Your task to perform on an android device: turn on bluetooth scan Image 0: 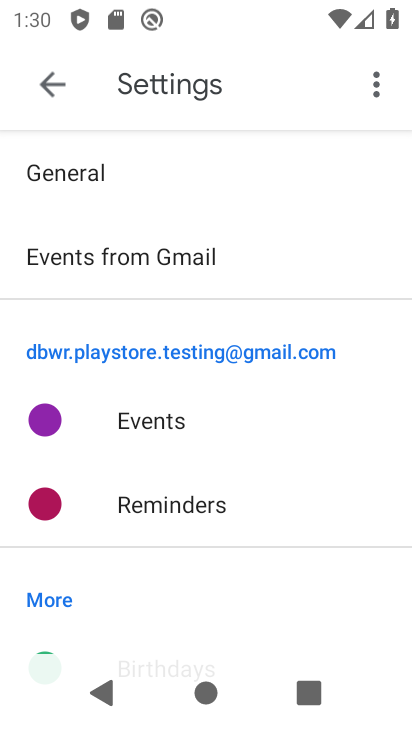
Step 0: press home button
Your task to perform on an android device: turn on bluetooth scan Image 1: 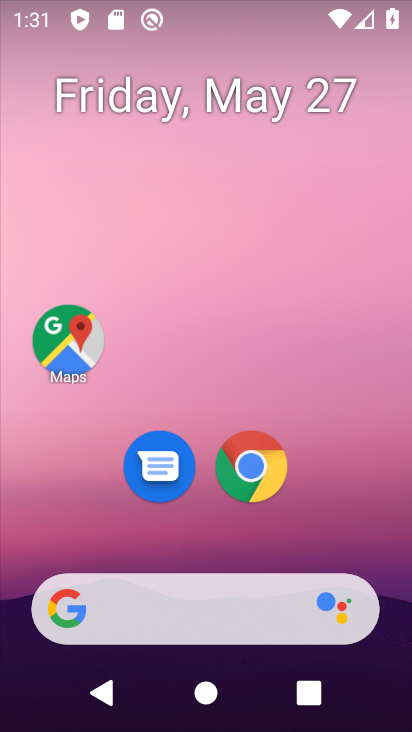
Step 1: drag from (393, 470) to (274, 1)
Your task to perform on an android device: turn on bluetooth scan Image 2: 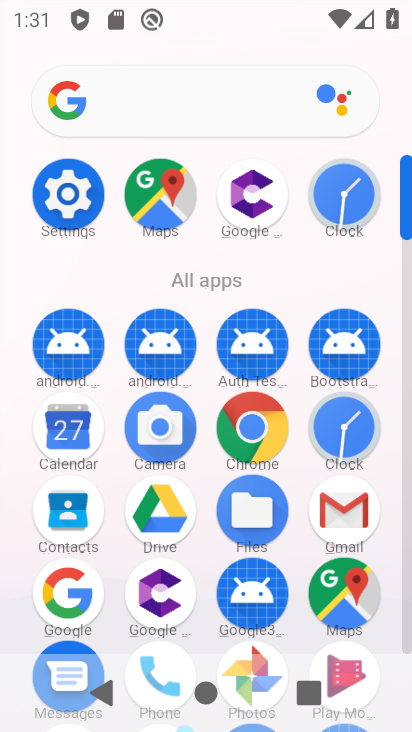
Step 2: click (64, 172)
Your task to perform on an android device: turn on bluetooth scan Image 3: 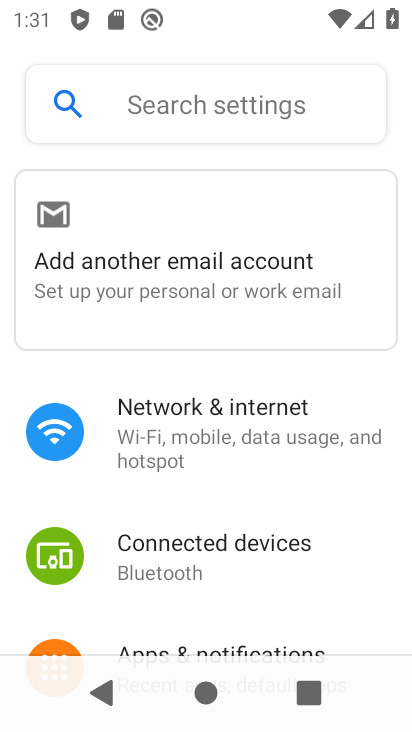
Step 3: drag from (215, 580) to (121, 100)
Your task to perform on an android device: turn on bluetooth scan Image 4: 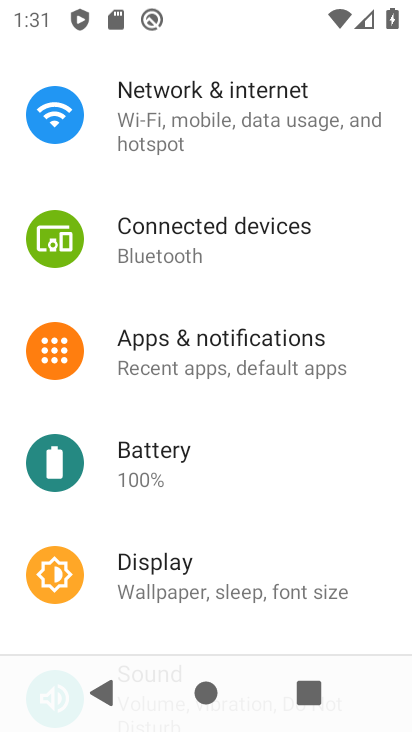
Step 4: drag from (150, 565) to (86, 98)
Your task to perform on an android device: turn on bluetooth scan Image 5: 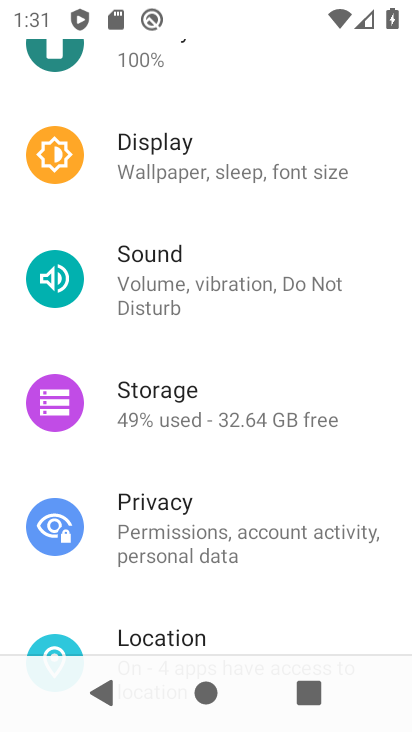
Step 5: drag from (166, 544) to (107, 174)
Your task to perform on an android device: turn on bluetooth scan Image 6: 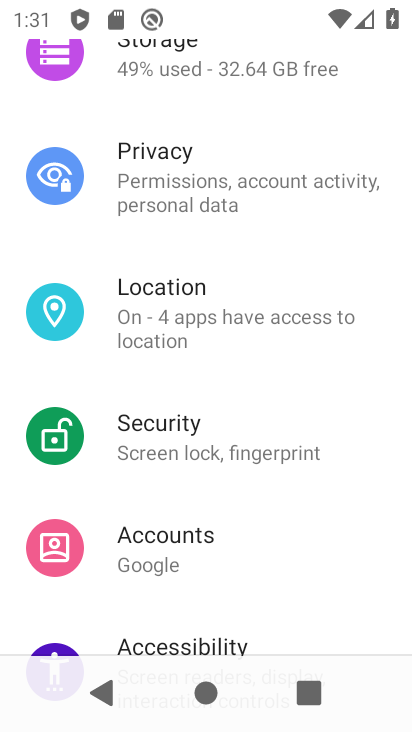
Step 6: click (129, 331)
Your task to perform on an android device: turn on bluetooth scan Image 7: 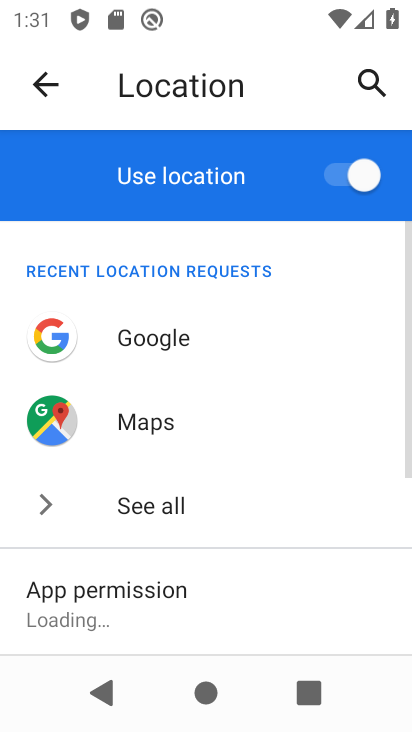
Step 7: drag from (110, 609) to (91, 370)
Your task to perform on an android device: turn on bluetooth scan Image 8: 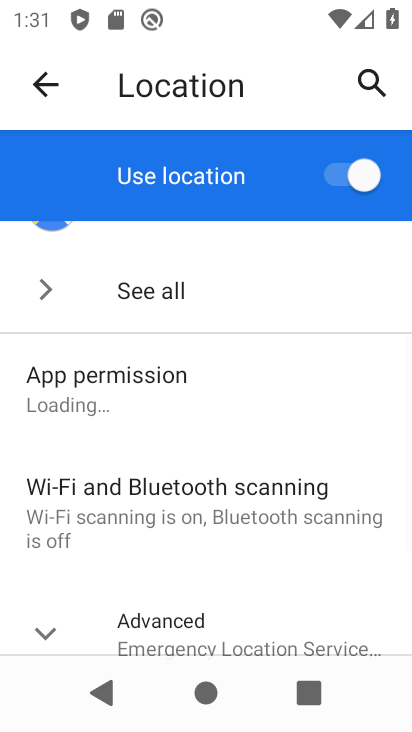
Step 8: click (126, 498)
Your task to perform on an android device: turn on bluetooth scan Image 9: 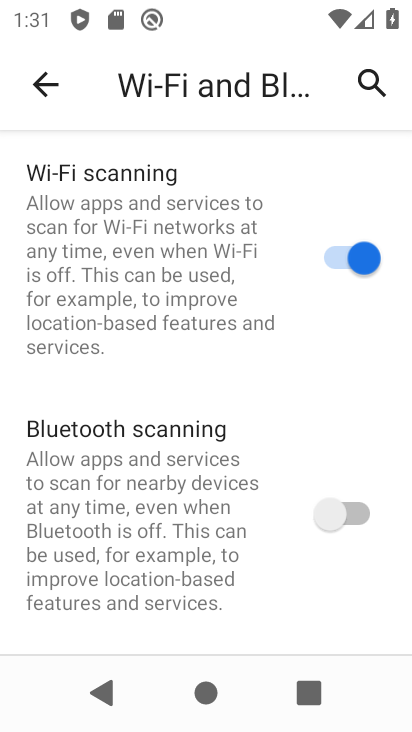
Step 9: click (322, 515)
Your task to perform on an android device: turn on bluetooth scan Image 10: 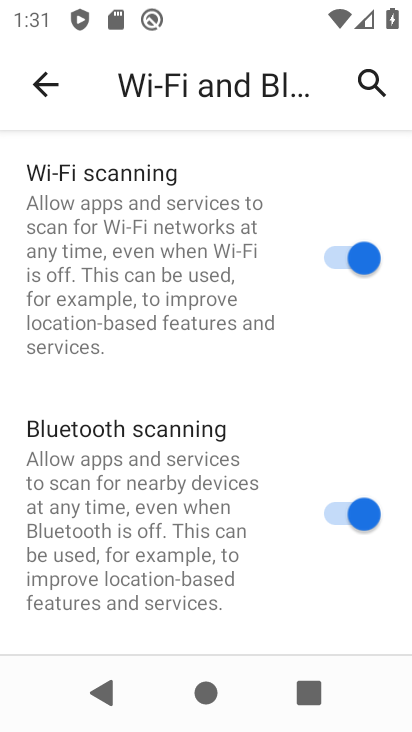
Step 10: task complete